Your task to perform on an android device: Go to wifi settings Image 0: 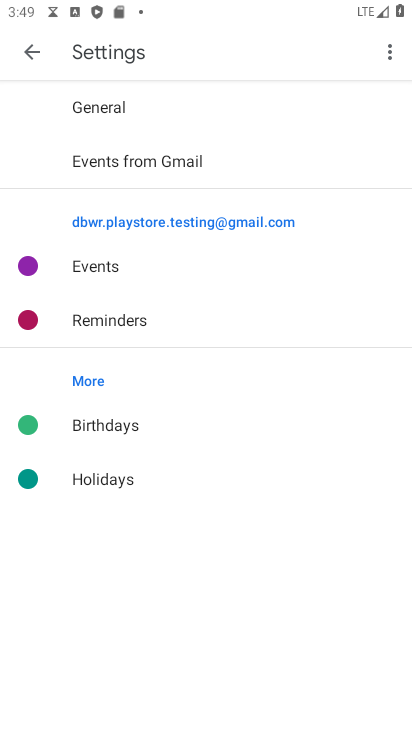
Step 0: press home button
Your task to perform on an android device: Go to wifi settings Image 1: 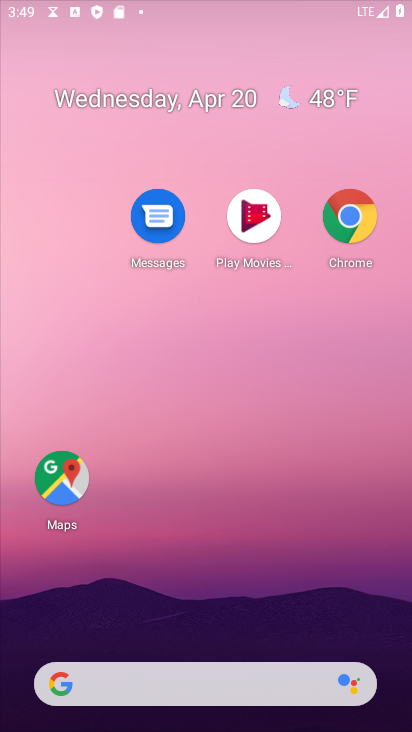
Step 1: drag from (278, 220) to (307, 32)
Your task to perform on an android device: Go to wifi settings Image 2: 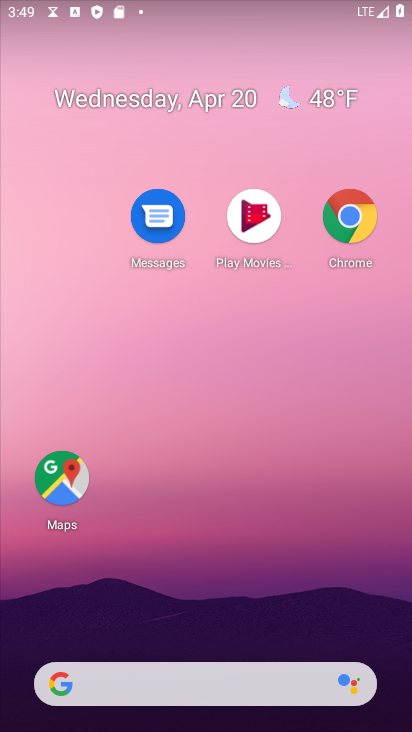
Step 2: drag from (250, 504) to (246, 87)
Your task to perform on an android device: Go to wifi settings Image 3: 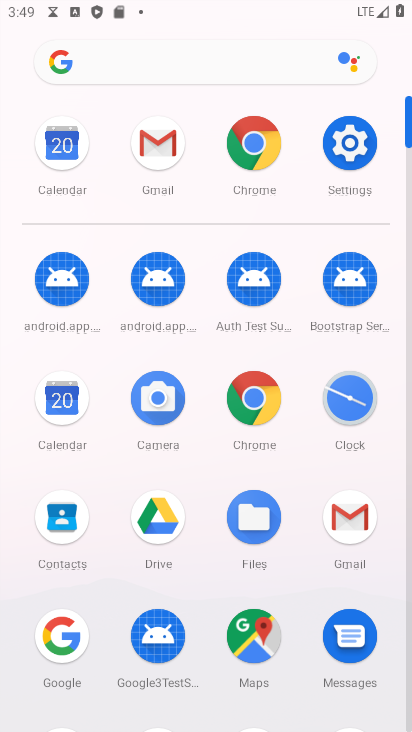
Step 3: click (353, 157)
Your task to perform on an android device: Go to wifi settings Image 4: 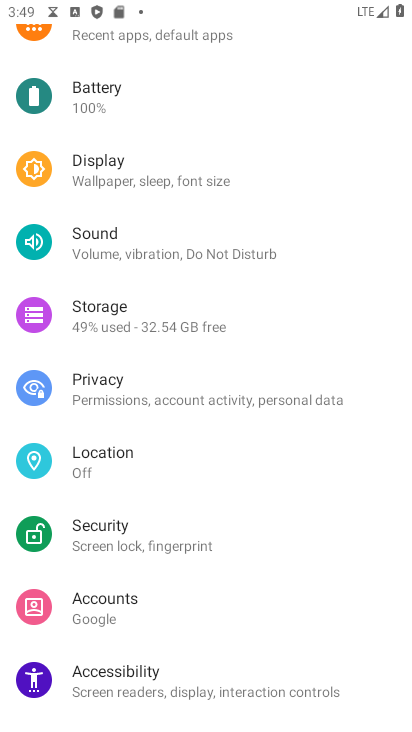
Step 4: drag from (136, 170) to (154, 623)
Your task to perform on an android device: Go to wifi settings Image 5: 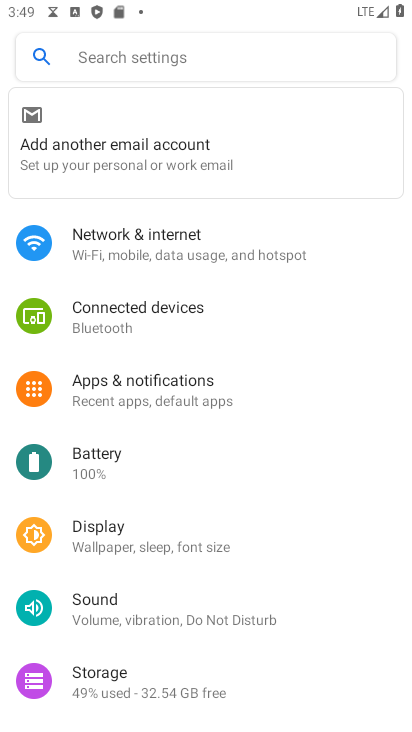
Step 5: click (161, 255)
Your task to perform on an android device: Go to wifi settings Image 6: 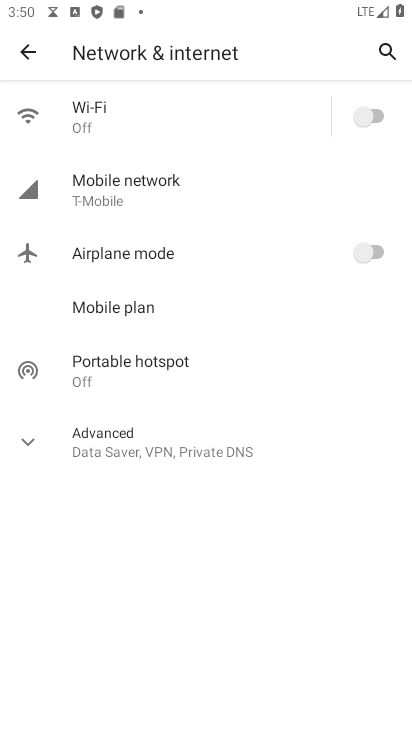
Step 6: click (171, 114)
Your task to perform on an android device: Go to wifi settings Image 7: 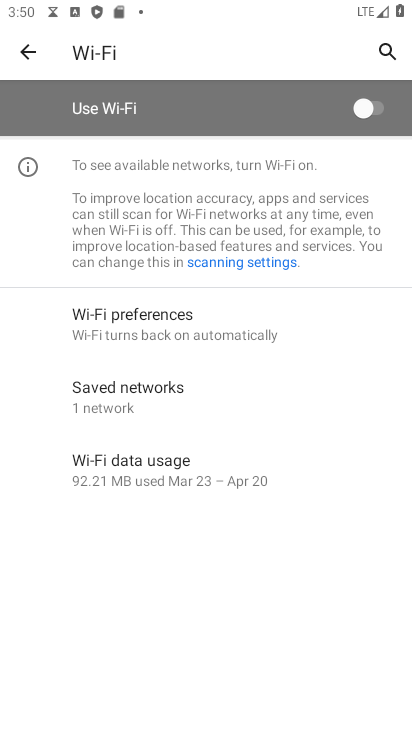
Step 7: task complete